Your task to perform on an android device: toggle wifi Image 0: 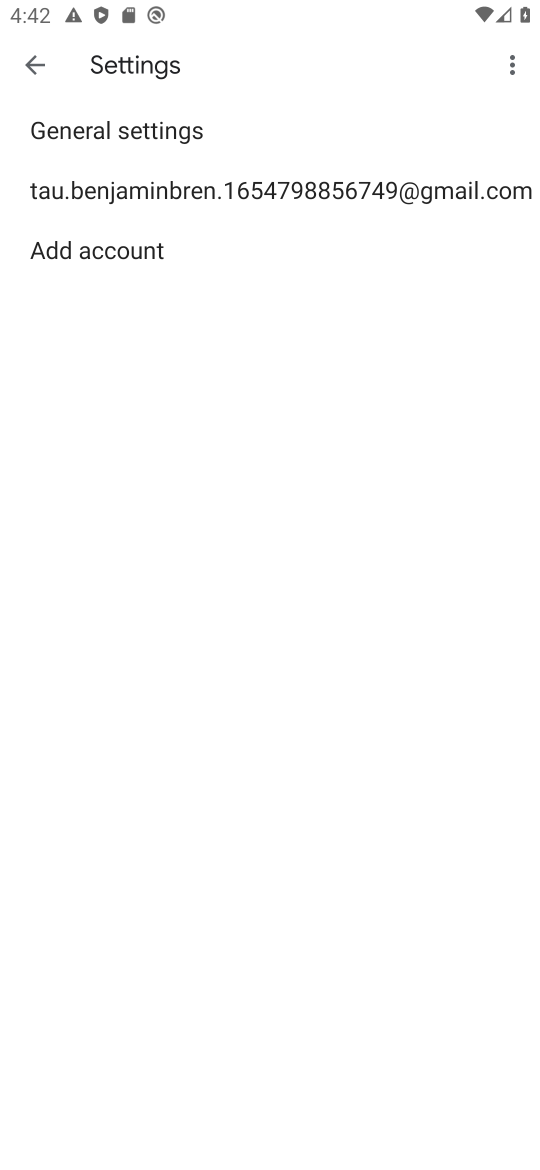
Step 0: press home button
Your task to perform on an android device: toggle wifi Image 1: 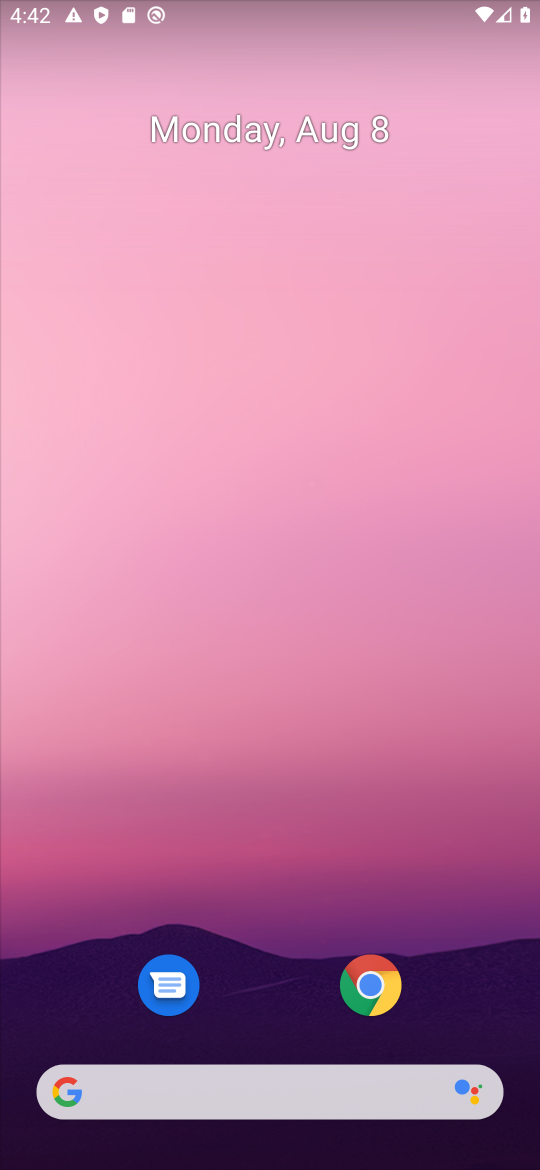
Step 1: drag from (290, 844) to (256, 127)
Your task to perform on an android device: toggle wifi Image 2: 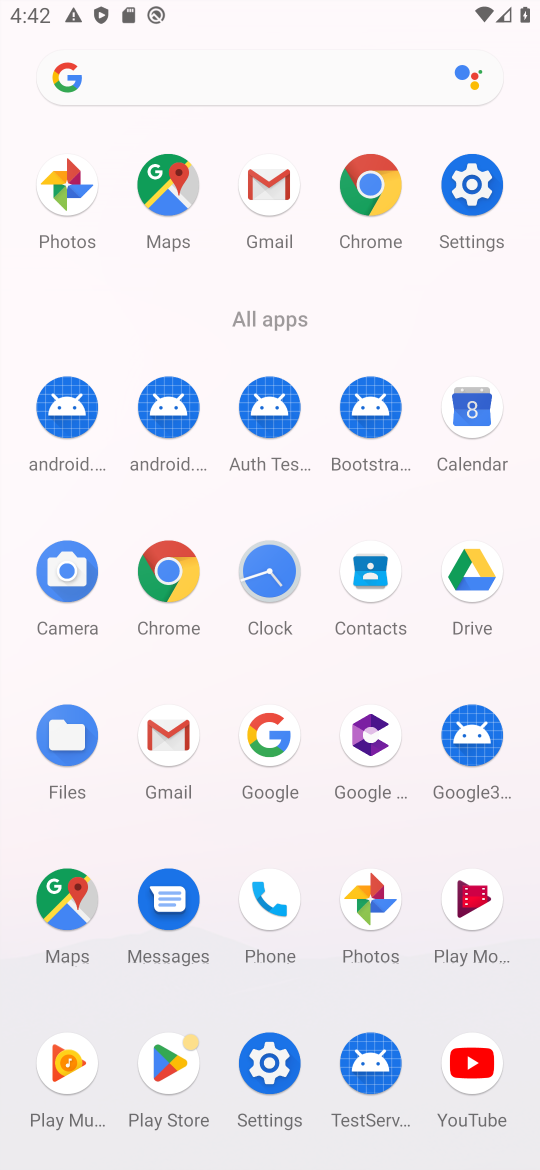
Step 2: click (463, 215)
Your task to perform on an android device: toggle wifi Image 3: 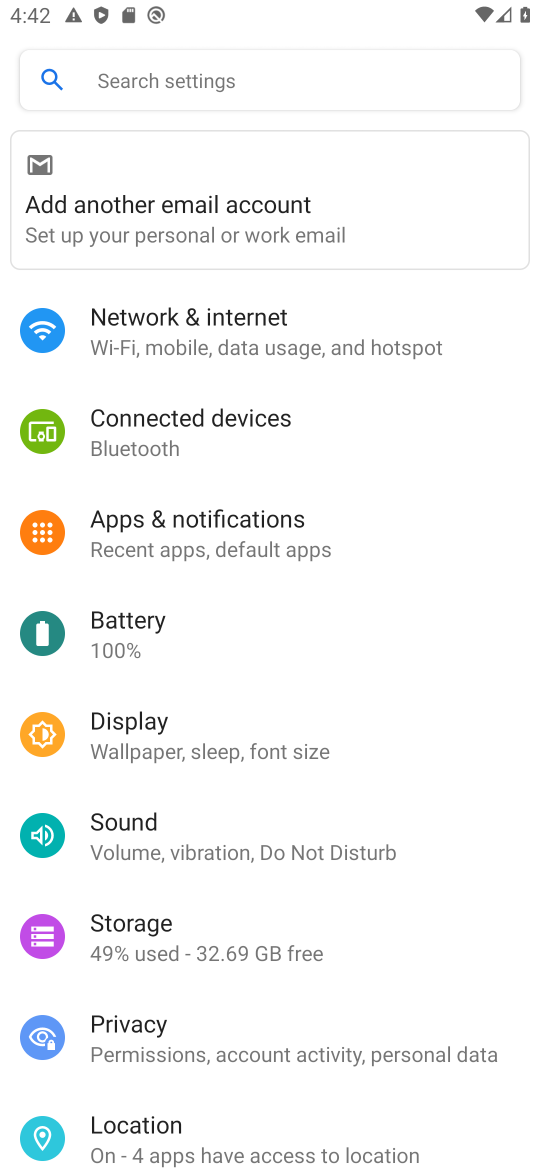
Step 3: click (174, 322)
Your task to perform on an android device: toggle wifi Image 4: 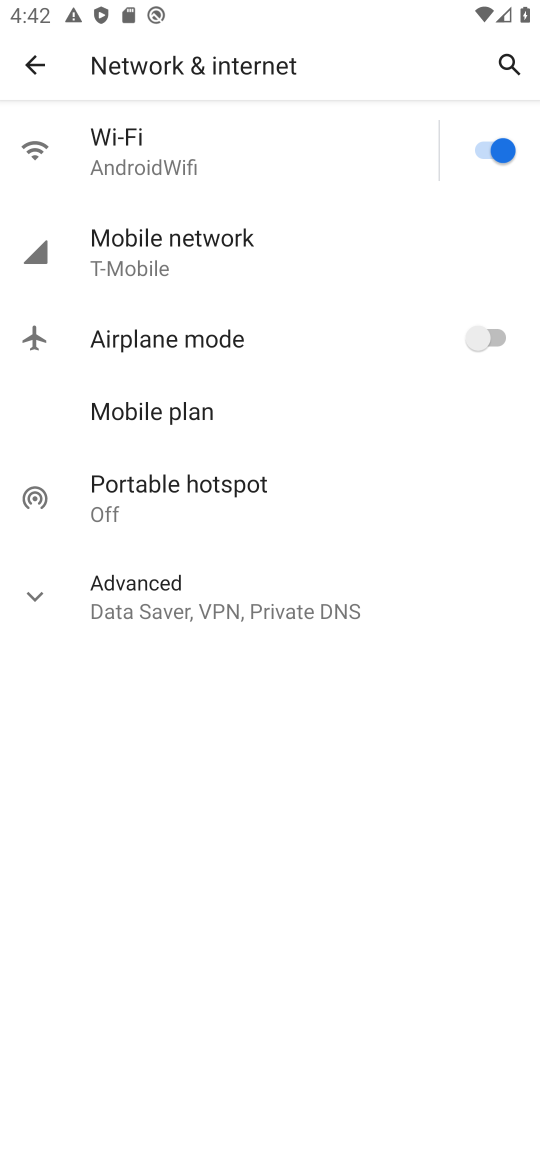
Step 4: task complete